Your task to perform on an android device: Open Google Maps and go to "Timeline" Image 0: 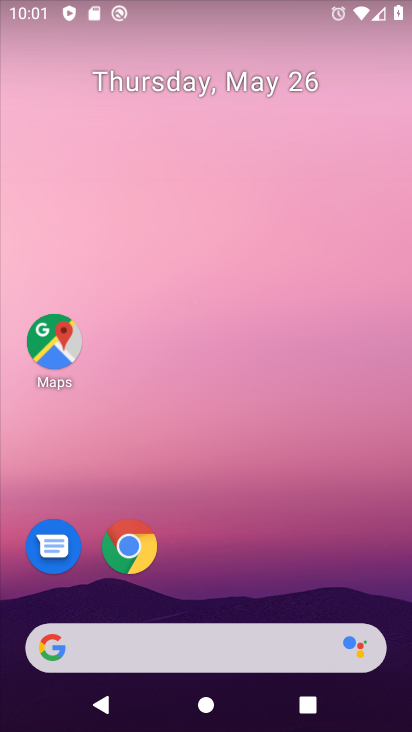
Step 0: click (53, 345)
Your task to perform on an android device: Open Google Maps and go to "Timeline" Image 1: 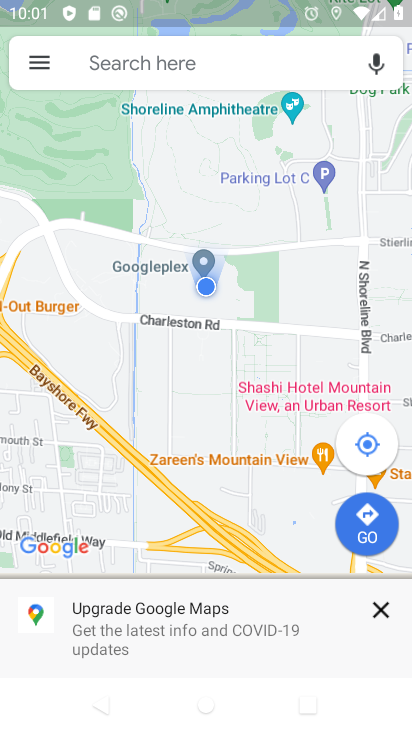
Step 1: click (43, 65)
Your task to perform on an android device: Open Google Maps and go to "Timeline" Image 2: 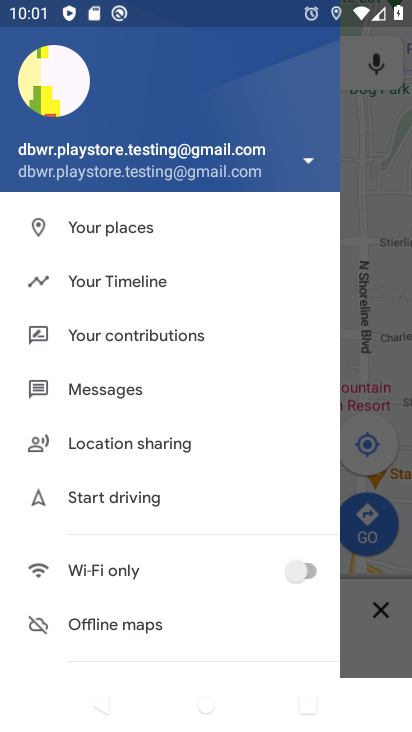
Step 2: click (107, 288)
Your task to perform on an android device: Open Google Maps and go to "Timeline" Image 3: 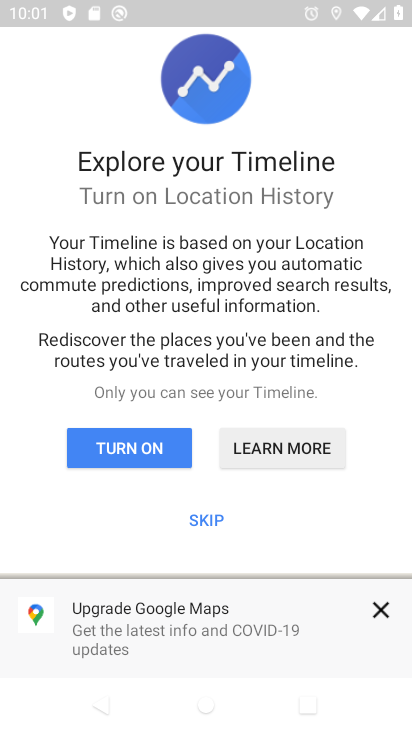
Step 3: click (211, 519)
Your task to perform on an android device: Open Google Maps and go to "Timeline" Image 4: 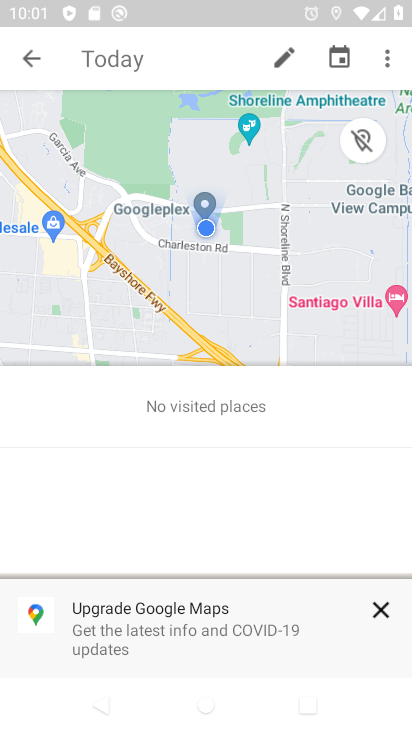
Step 4: task complete